Your task to perform on an android device: set an alarm Image 0: 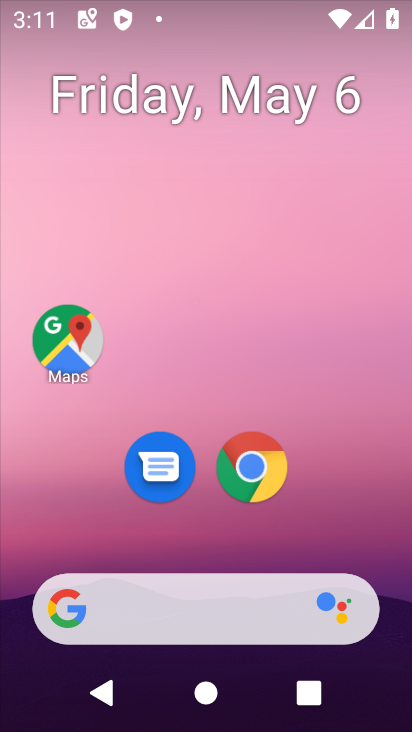
Step 0: drag from (251, 485) to (311, 85)
Your task to perform on an android device: set an alarm Image 1: 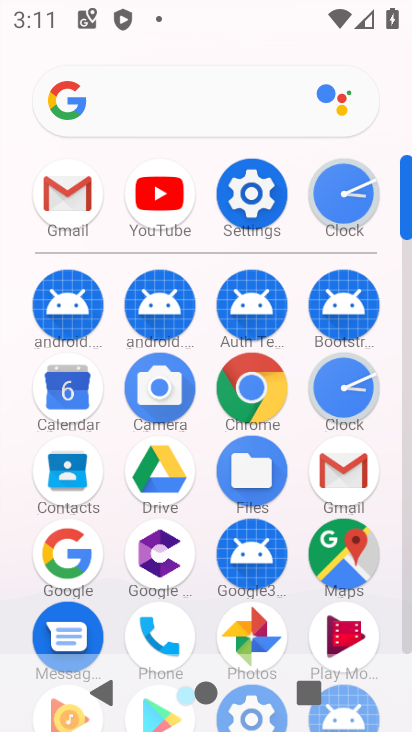
Step 1: drag from (180, 625) to (221, 434)
Your task to perform on an android device: set an alarm Image 2: 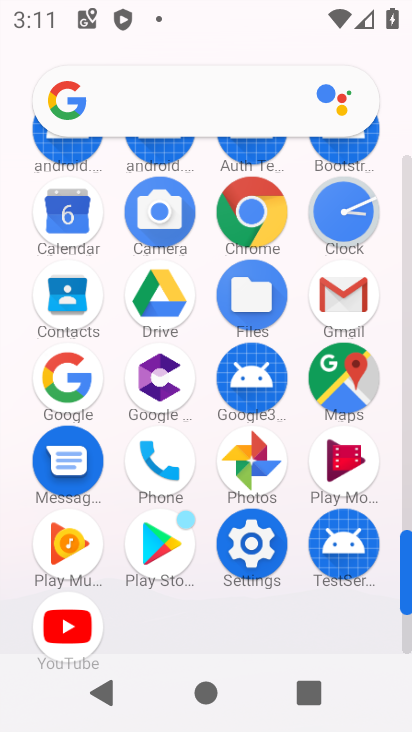
Step 2: click (354, 230)
Your task to perform on an android device: set an alarm Image 3: 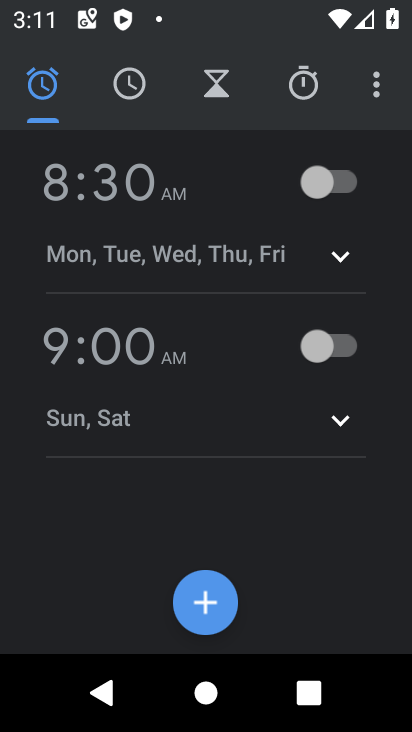
Step 3: click (336, 174)
Your task to perform on an android device: set an alarm Image 4: 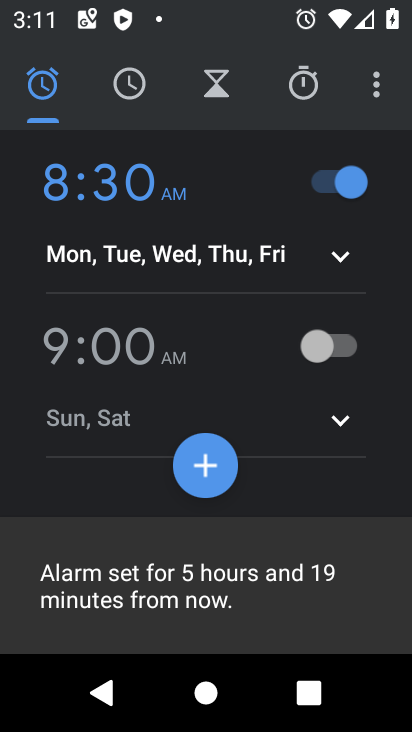
Step 4: task complete